Your task to perform on an android device: star an email in the gmail app Image 0: 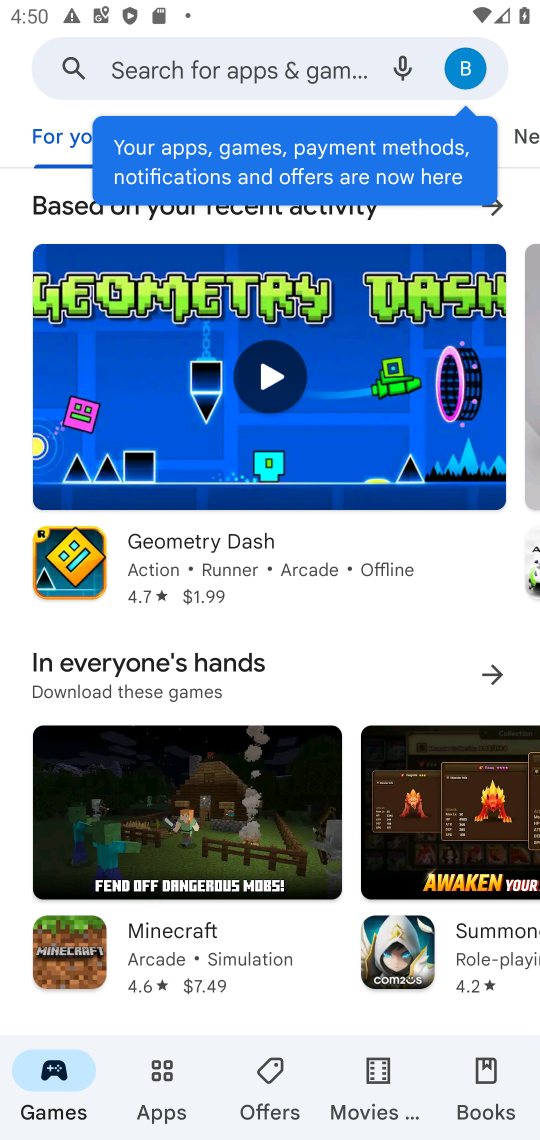
Step 0: press home button
Your task to perform on an android device: star an email in the gmail app Image 1: 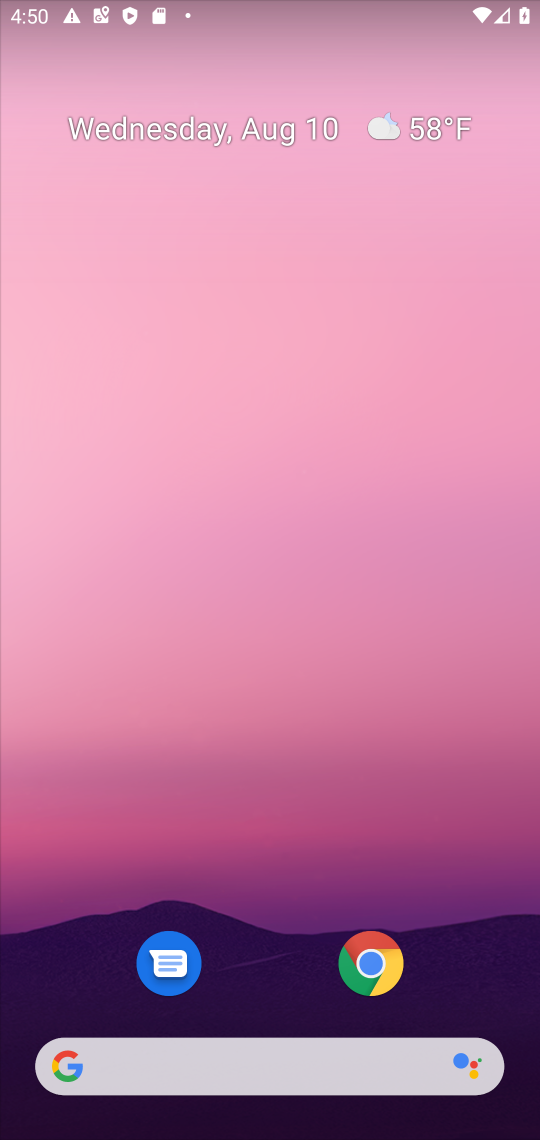
Step 1: drag from (246, 981) to (236, 139)
Your task to perform on an android device: star an email in the gmail app Image 2: 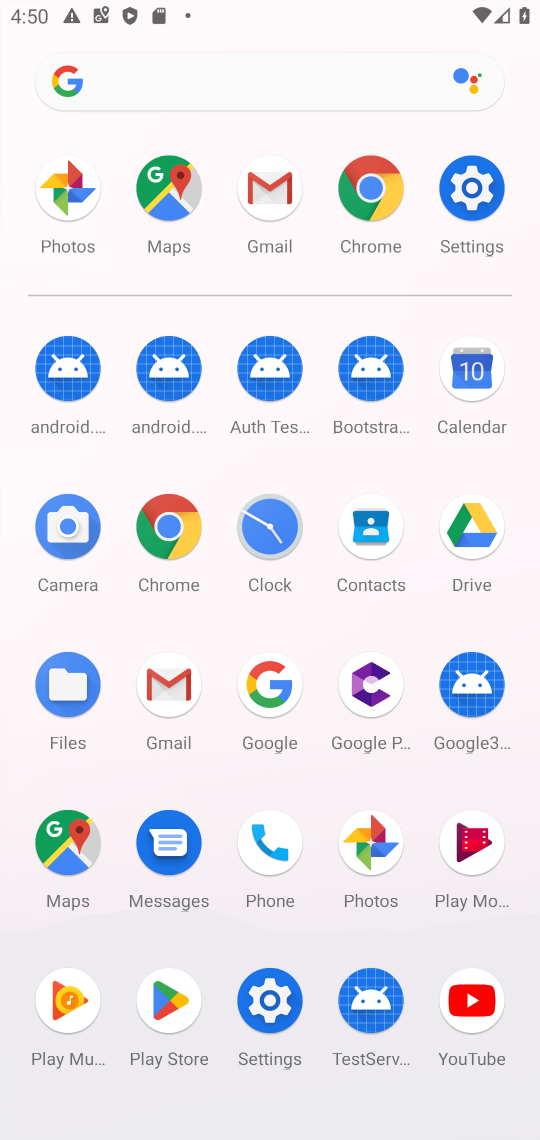
Step 2: click (163, 677)
Your task to perform on an android device: star an email in the gmail app Image 3: 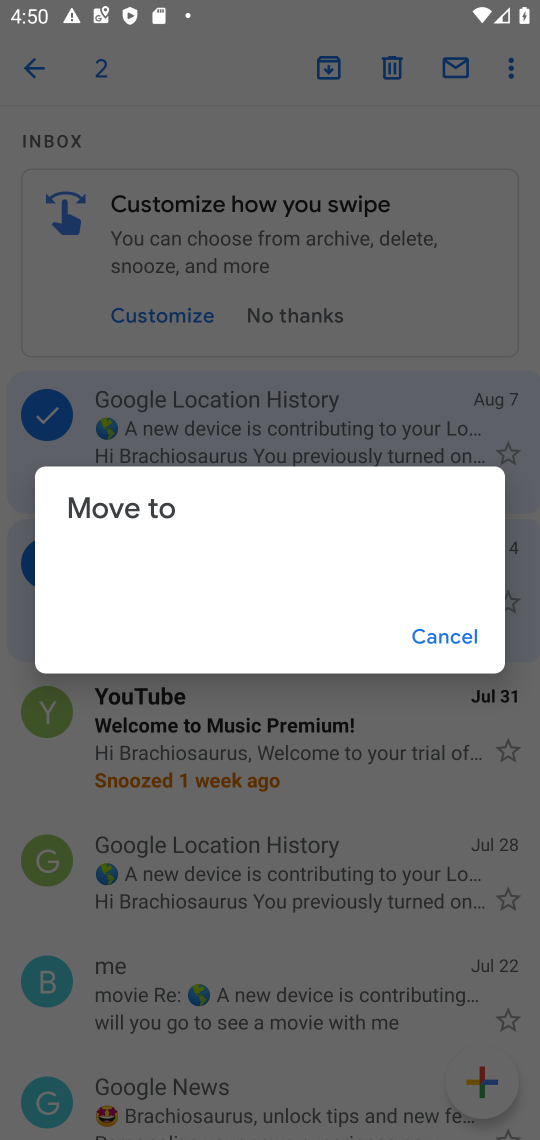
Step 3: click (456, 646)
Your task to perform on an android device: star an email in the gmail app Image 4: 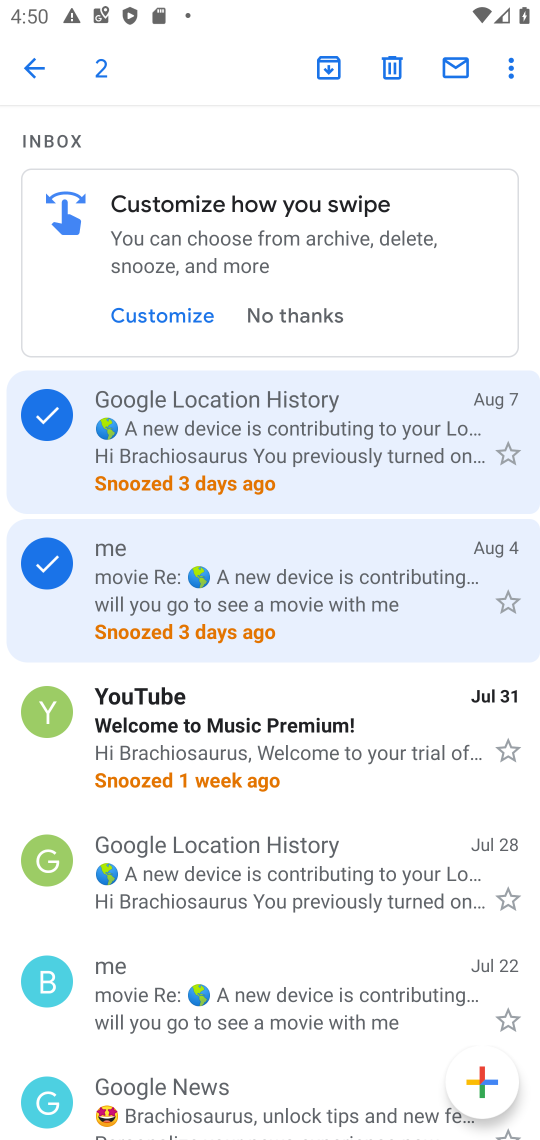
Step 4: click (32, 55)
Your task to perform on an android device: star an email in the gmail app Image 5: 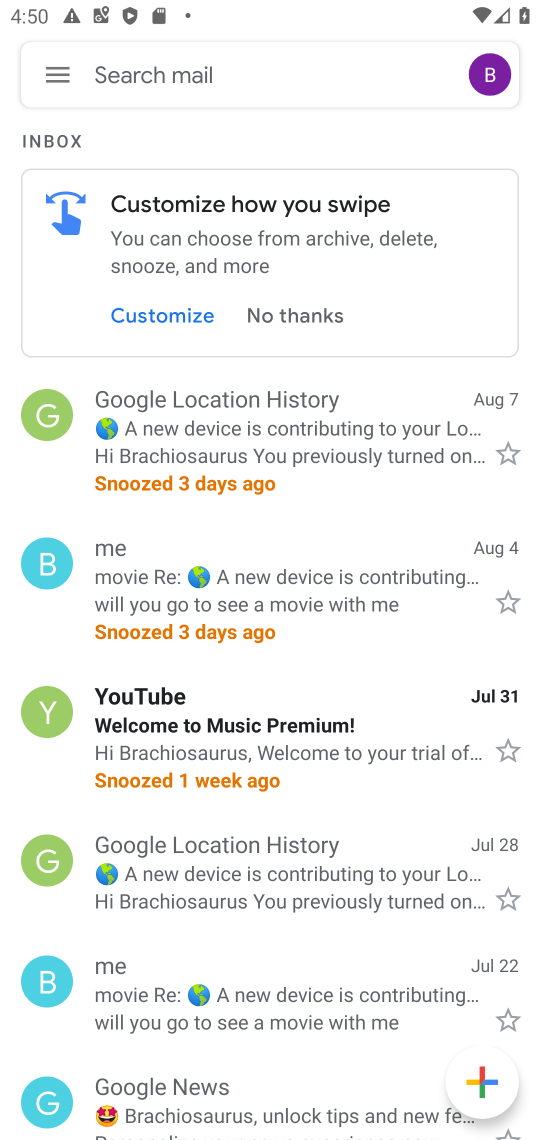
Step 5: click (54, 72)
Your task to perform on an android device: star an email in the gmail app Image 6: 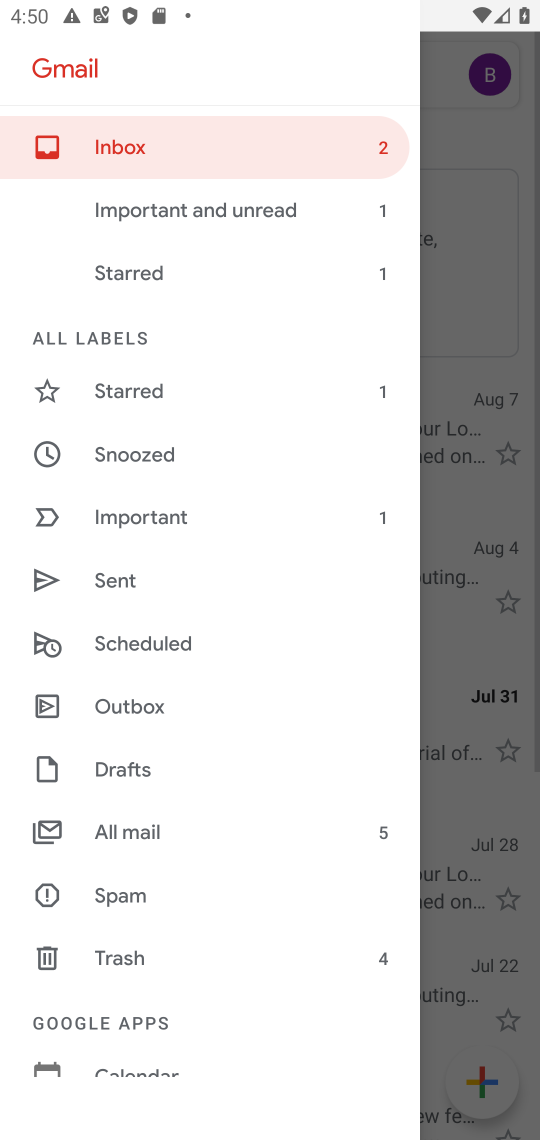
Step 6: click (136, 823)
Your task to perform on an android device: star an email in the gmail app Image 7: 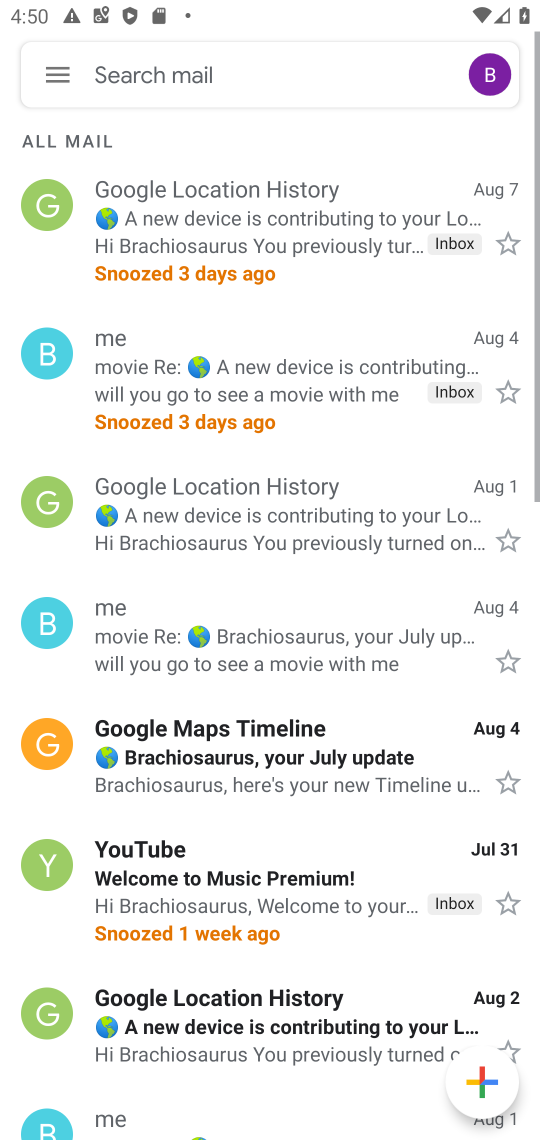
Step 7: task complete